Your task to perform on an android device: Go to accessibility settings Image 0: 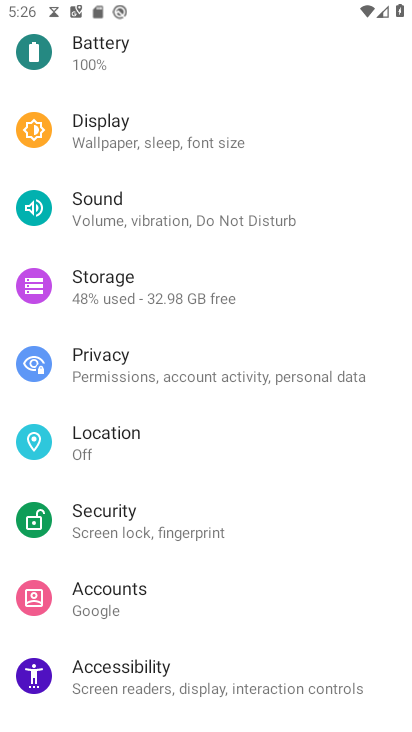
Step 0: click (178, 693)
Your task to perform on an android device: Go to accessibility settings Image 1: 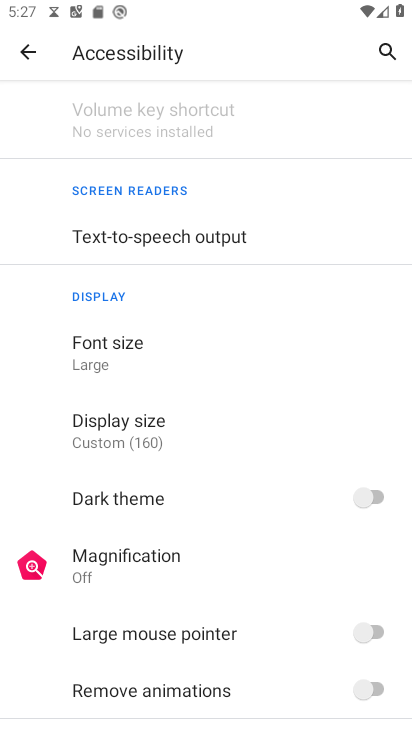
Step 1: task complete